Your task to perform on an android device: Open Maps and search for coffee Image 0: 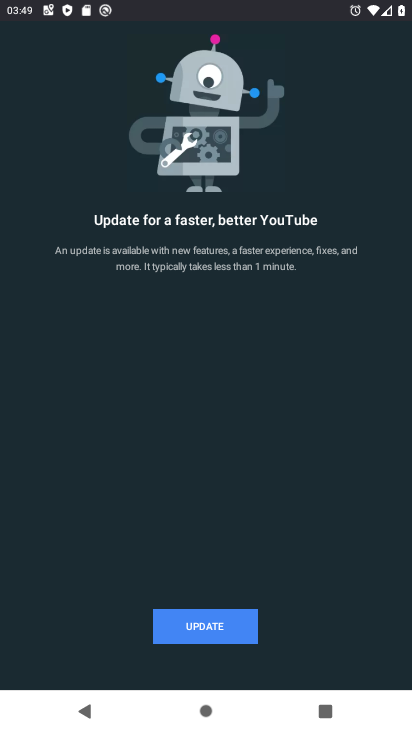
Step 0: press home button
Your task to perform on an android device: Open Maps and search for coffee Image 1: 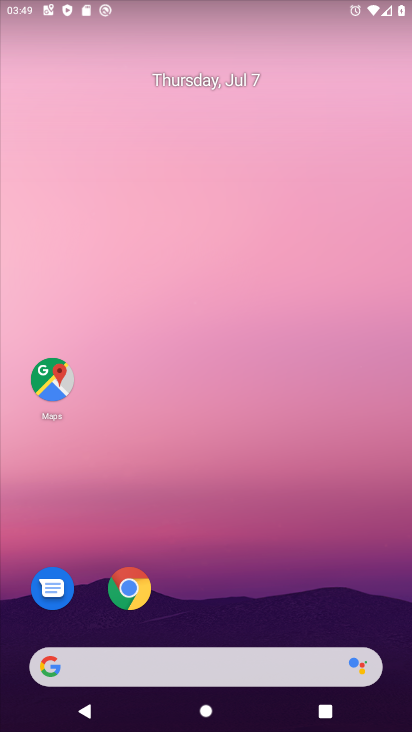
Step 1: click (46, 383)
Your task to perform on an android device: Open Maps and search for coffee Image 2: 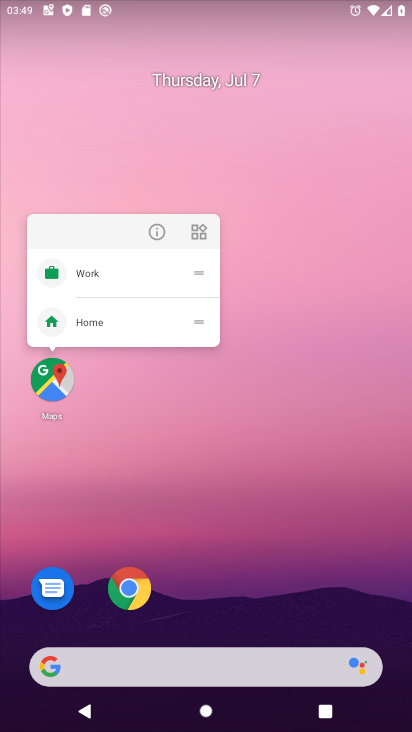
Step 2: click (46, 383)
Your task to perform on an android device: Open Maps and search for coffee Image 3: 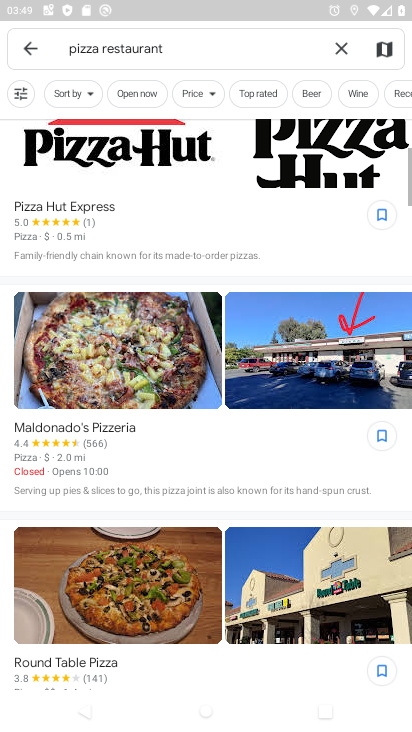
Step 3: click (344, 46)
Your task to perform on an android device: Open Maps and search for coffee Image 4: 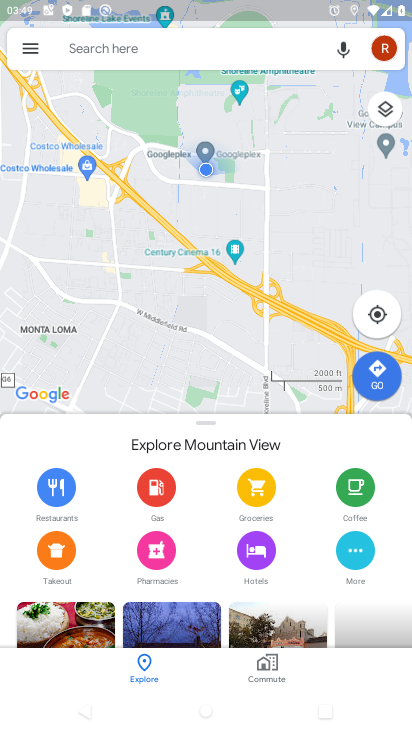
Step 4: click (183, 54)
Your task to perform on an android device: Open Maps and search for coffee Image 5: 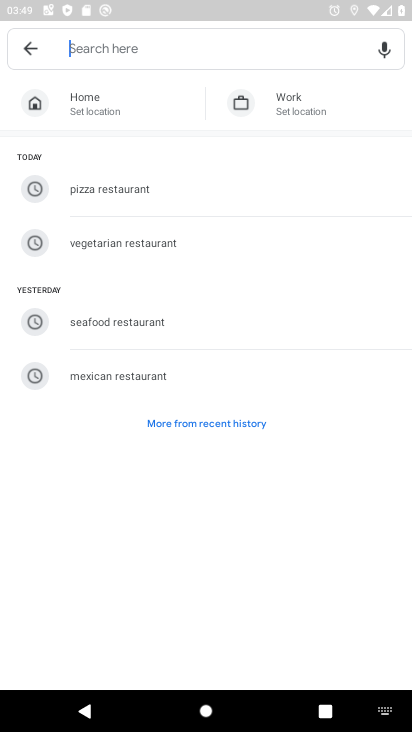
Step 5: click (179, 419)
Your task to perform on an android device: Open Maps and search for coffee Image 6: 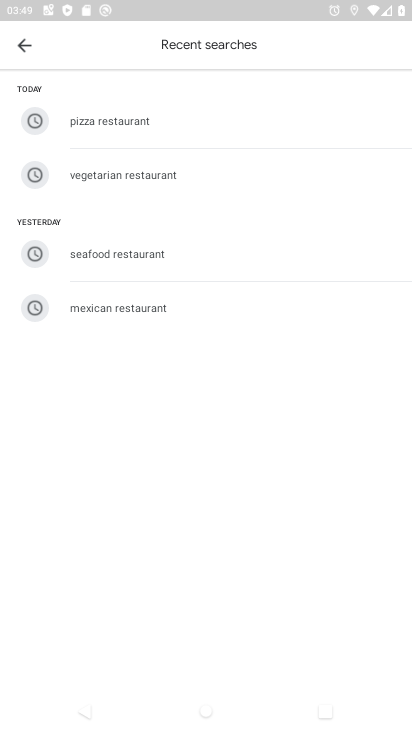
Step 6: click (16, 48)
Your task to perform on an android device: Open Maps and search for coffee Image 7: 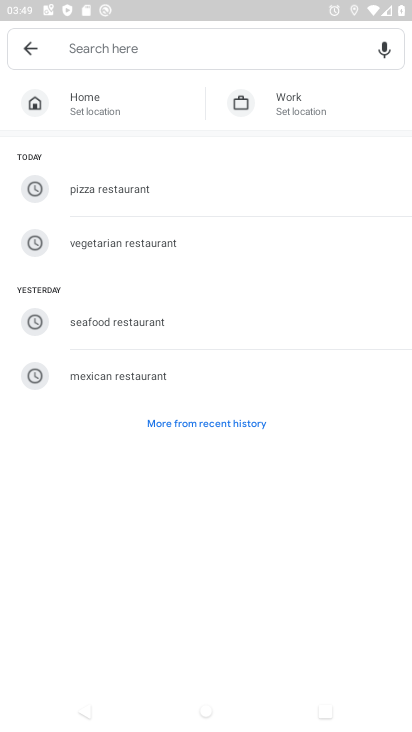
Step 7: click (117, 44)
Your task to perform on an android device: Open Maps and search for coffee Image 8: 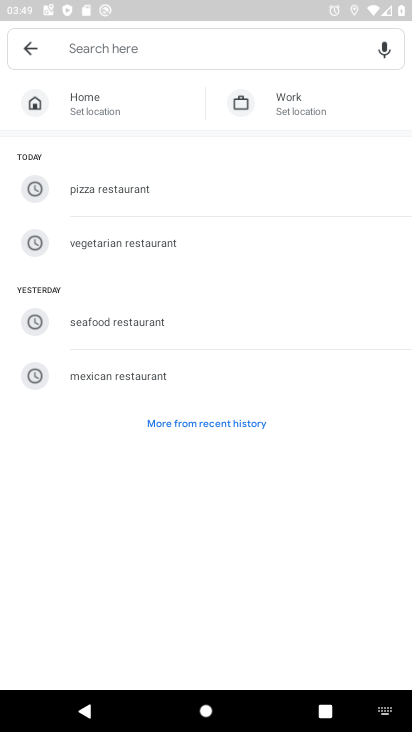
Step 8: type "coffee"
Your task to perform on an android device: Open Maps and search for coffee Image 9: 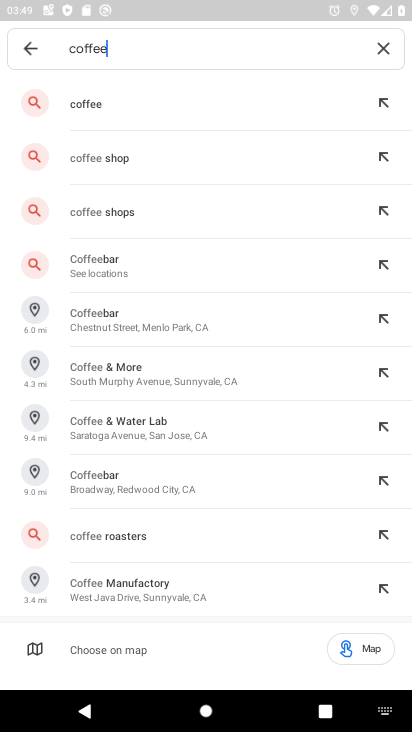
Step 9: click (100, 96)
Your task to perform on an android device: Open Maps and search for coffee Image 10: 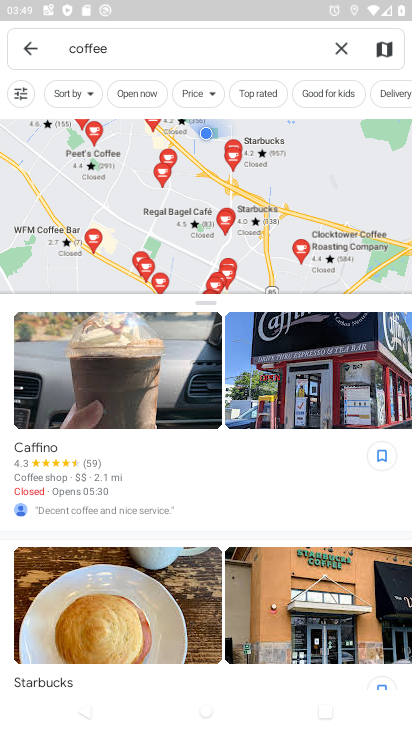
Step 10: task complete